Your task to perform on an android device: Go to Reddit.com Image 0: 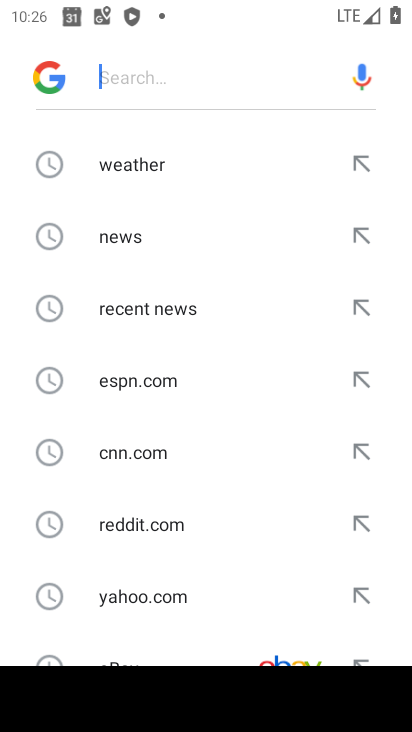
Step 0: press home button
Your task to perform on an android device: Go to Reddit.com Image 1: 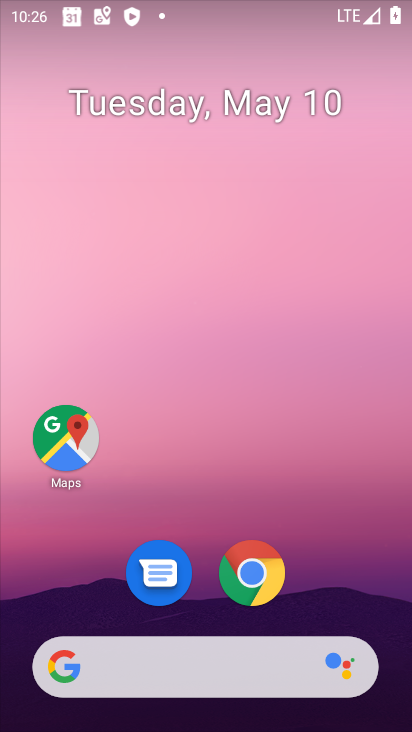
Step 1: click (255, 570)
Your task to perform on an android device: Go to Reddit.com Image 2: 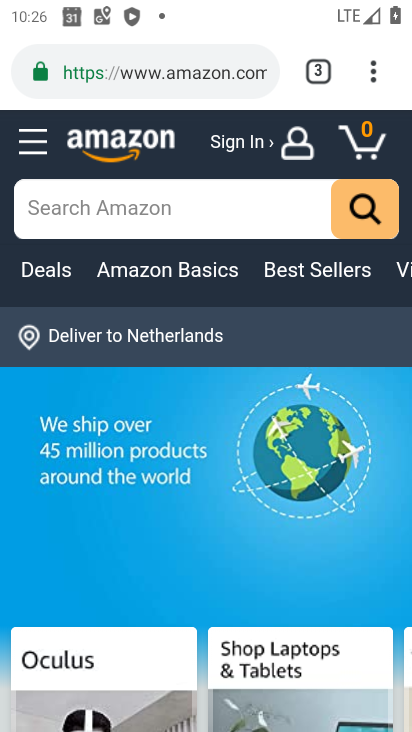
Step 2: click (372, 65)
Your task to perform on an android device: Go to Reddit.com Image 3: 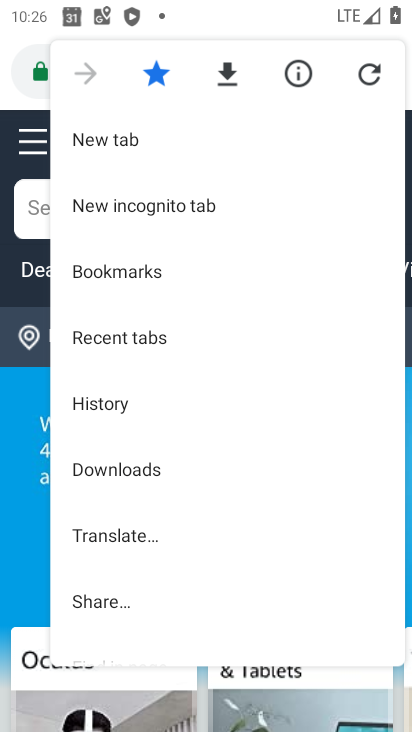
Step 3: click (117, 137)
Your task to perform on an android device: Go to Reddit.com Image 4: 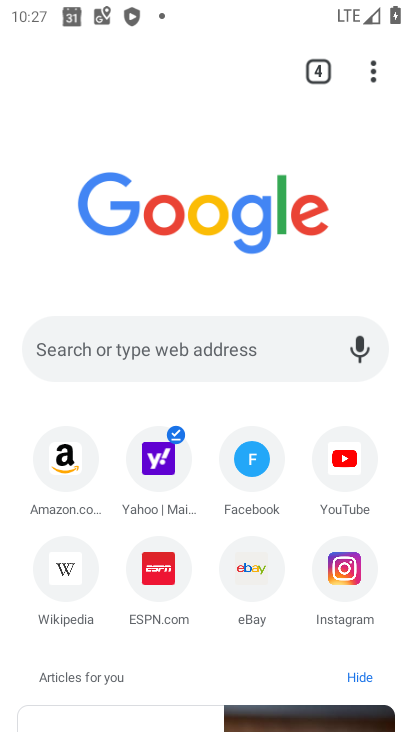
Step 4: click (144, 340)
Your task to perform on an android device: Go to Reddit.com Image 5: 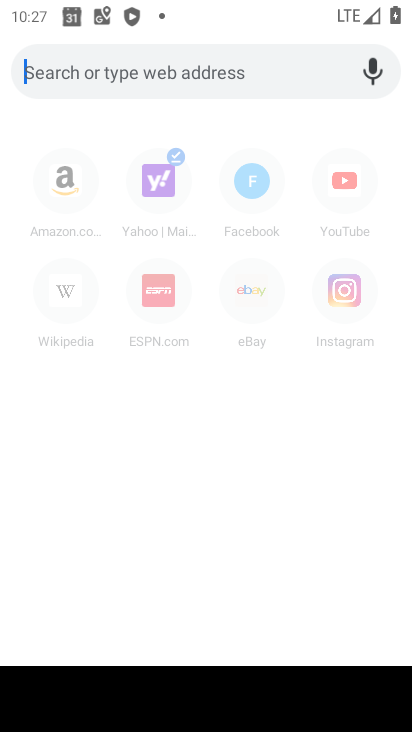
Step 5: type "reddit.com"
Your task to perform on an android device: Go to Reddit.com Image 6: 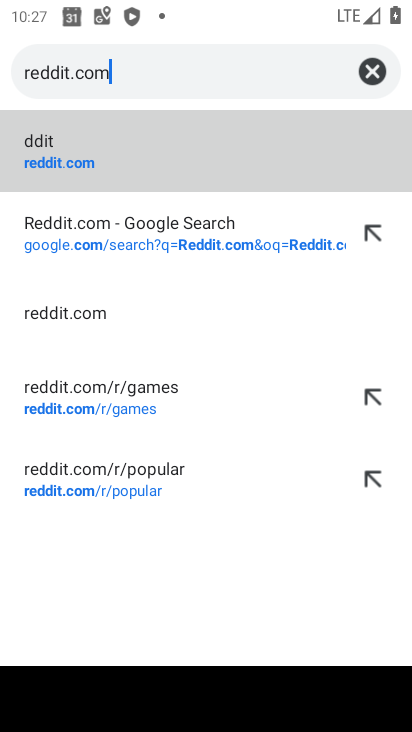
Step 6: click (84, 217)
Your task to perform on an android device: Go to Reddit.com Image 7: 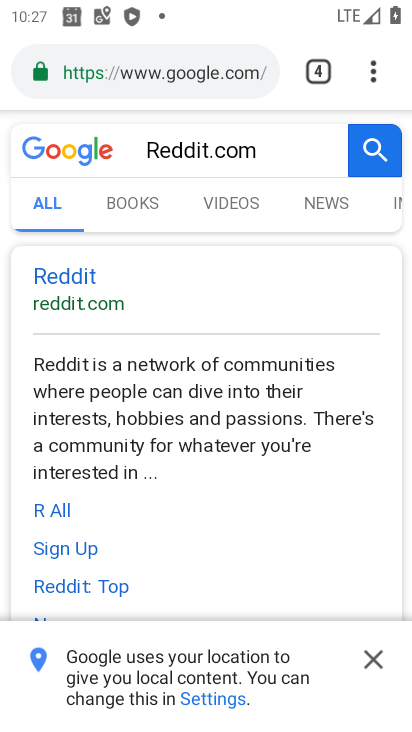
Step 7: task complete